Your task to perform on an android device: Open my contact list Image 0: 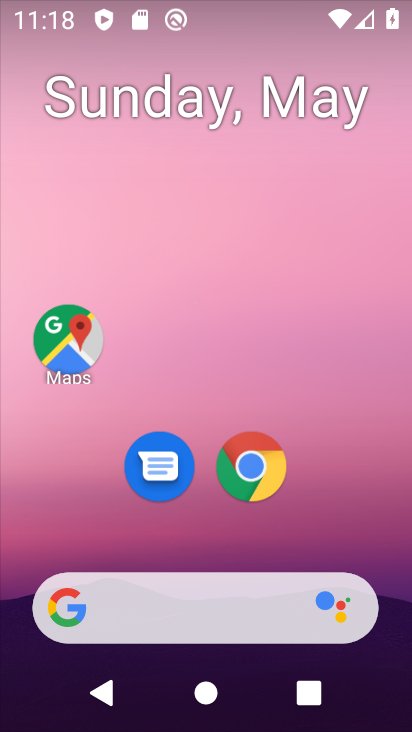
Step 0: drag from (212, 494) to (225, 53)
Your task to perform on an android device: Open my contact list Image 1: 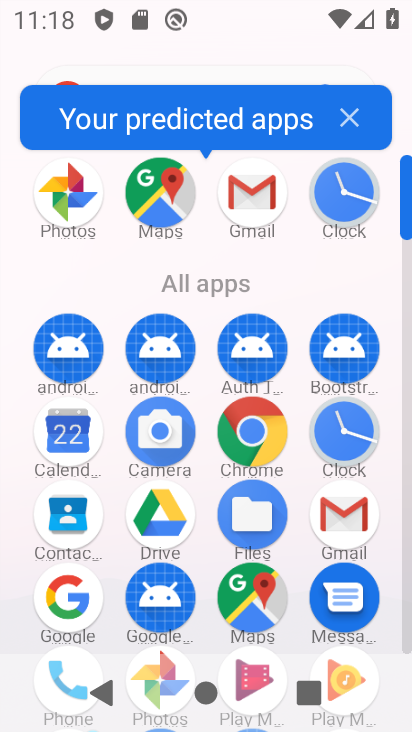
Step 1: click (69, 521)
Your task to perform on an android device: Open my contact list Image 2: 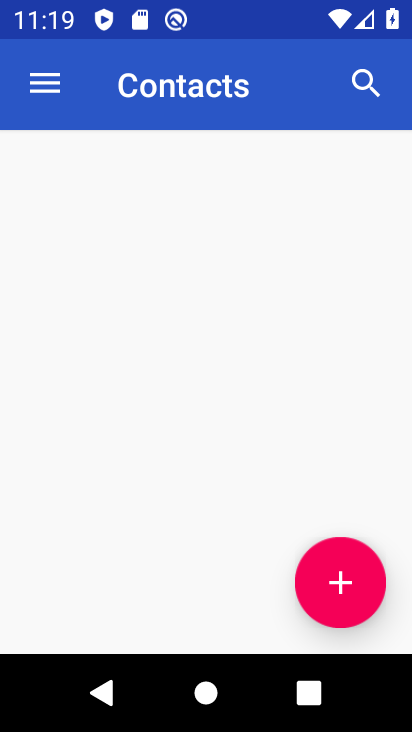
Step 2: click (347, 600)
Your task to perform on an android device: Open my contact list Image 3: 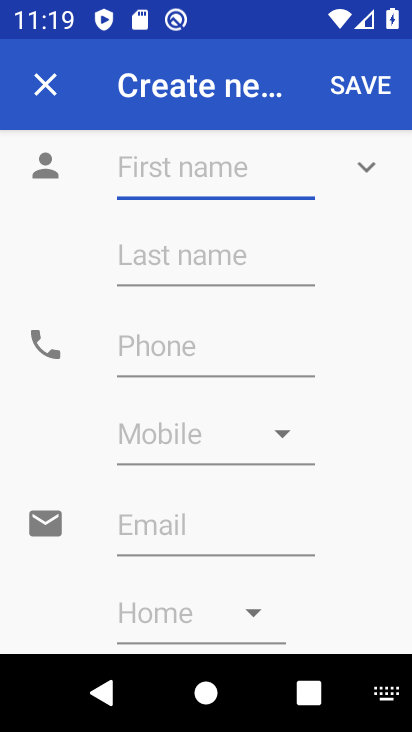
Step 3: type "hgdchgnm"
Your task to perform on an android device: Open my contact list Image 4: 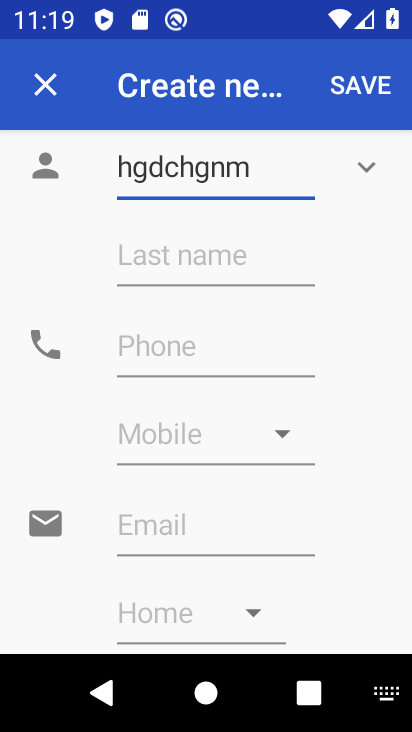
Step 4: click (357, 85)
Your task to perform on an android device: Open my contact list Image 5: 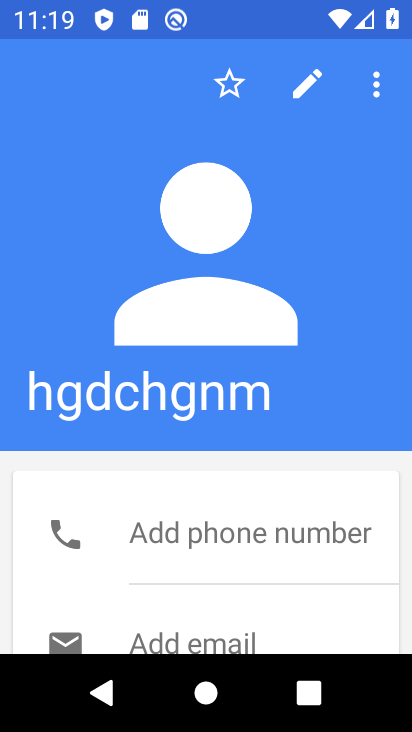
Step 5: task complete